Your task to perform on an android device: turn on improve location accuracy Image 0: 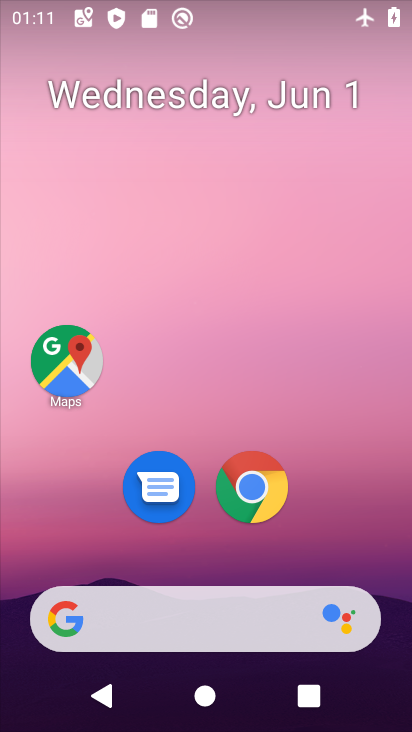
Step 0: drag from (292, 526) to (321, 176)
Your task to perform on an android device: turn on improve location accuracy Image 1: 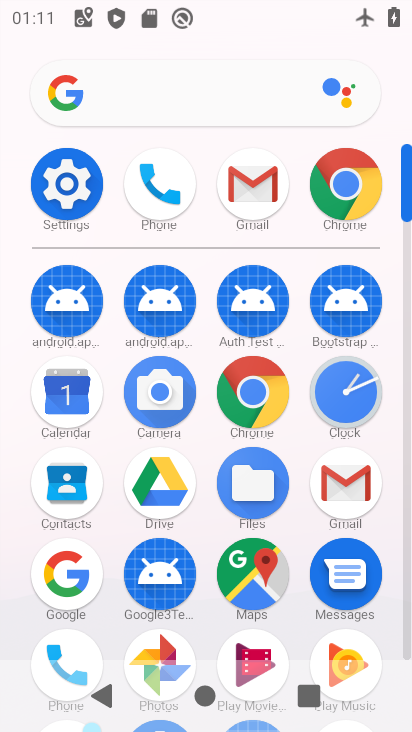
Step 1: click (58, 166)
Your task to perform on an android device: turn on improve location accuracy Image 2: 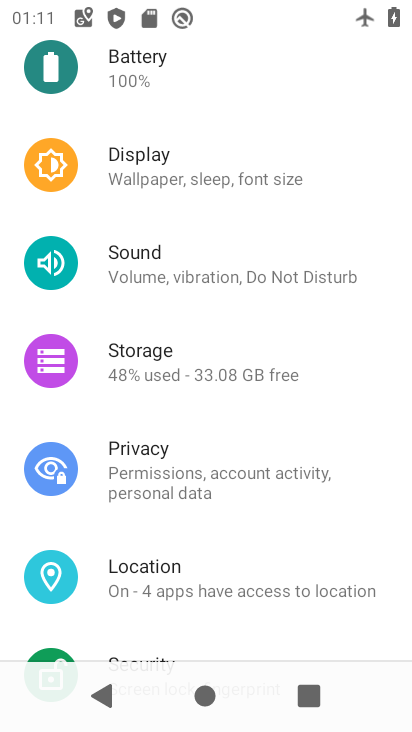
Step 2: drag from (174, 154) to (197, 529)
Your task to perform on an android device: turn on improve location accuracy Image 3: 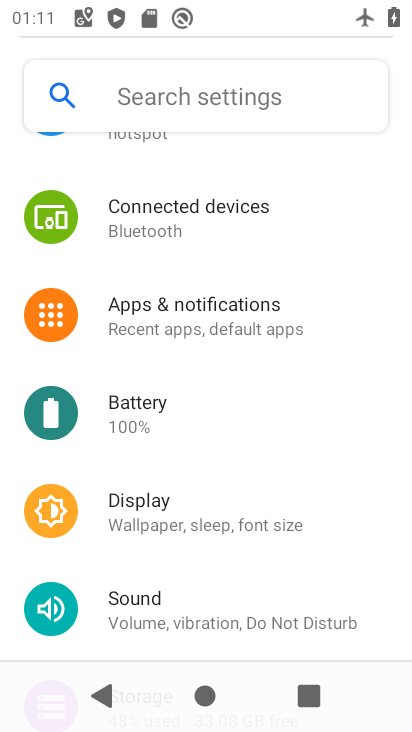
Step 3: drag from (219, 190) to (187, 555)
Your task to perform on an android device: turn on improve location accuracy Image 4: 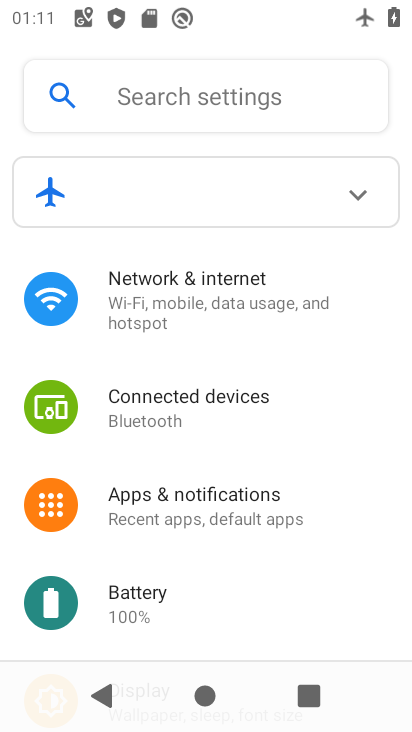
Step 4: drag from (201, 557) to (228, 271)
Your task to perform on an android device: turn on improve location accuracy Image 5: 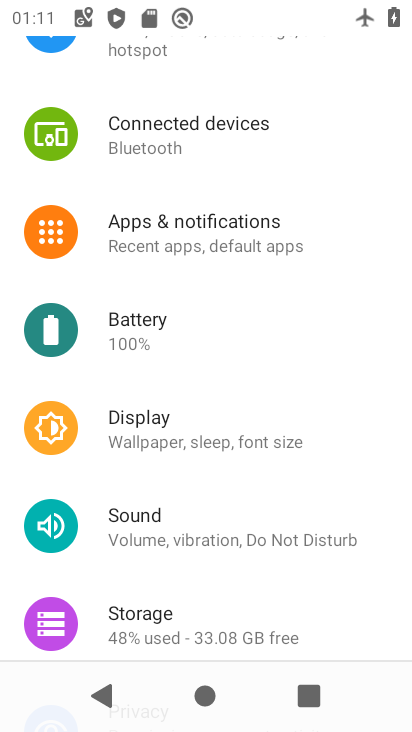
Step 5: drag from (177, 544) to (221, 261)
Your task to perform on an android device: turn on improve location accuracy Image 6: 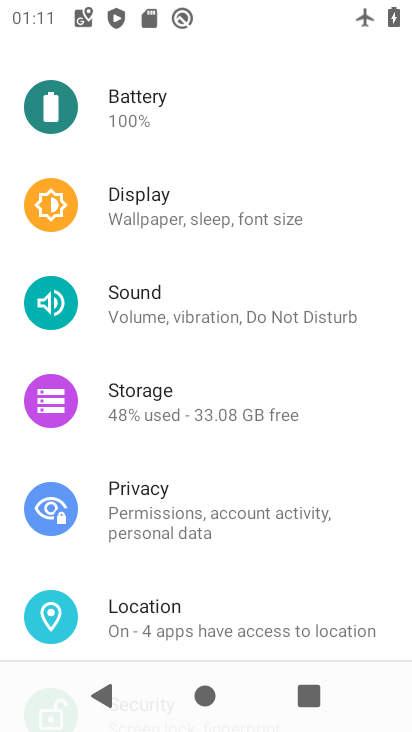
Step 6: drag from (199, 563) to (223, 346)
Your task to perform on an android device: turn on improve location accuracy Image 7: 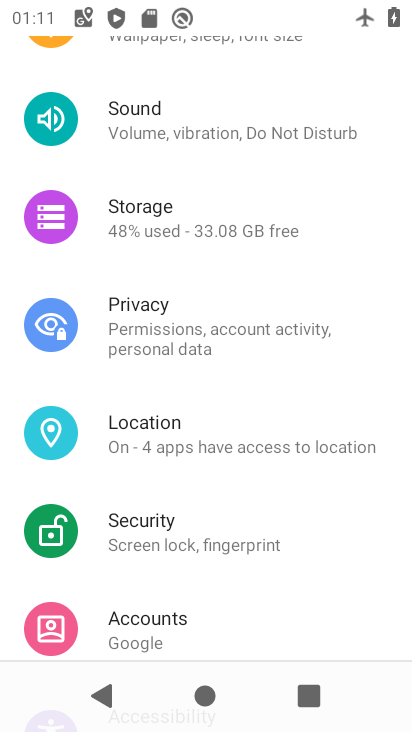
Step 7: click (157, 425)
Your task to perform on an android device: turn on improve location accuracy Image 8: 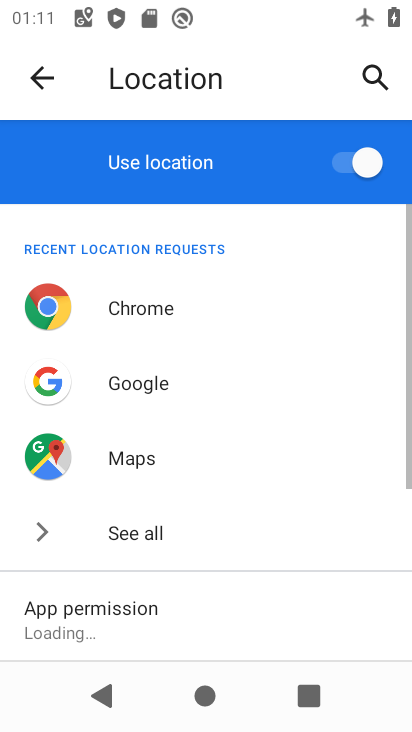
Step 8: drag from (144, 607) to (200, 299)
Your task to perform on an android device: turn on improve location accuracy Image 9: 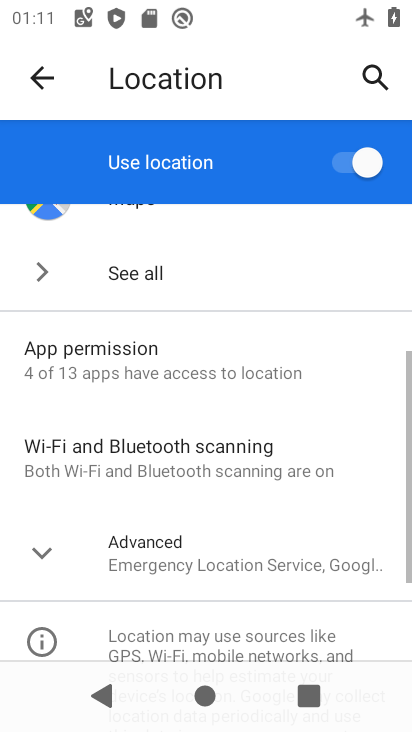
Step 9: click (103, 559)
Your task to perform on an android device: turn on improve location accuracy Image 10: 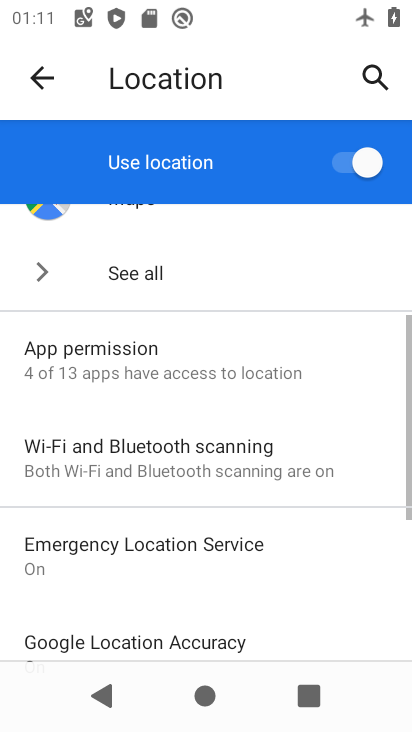
Step 10: drag from (131, 598) to (173, 368)
Your task to perform on an android device: turn on improve location accuracy Image 11: 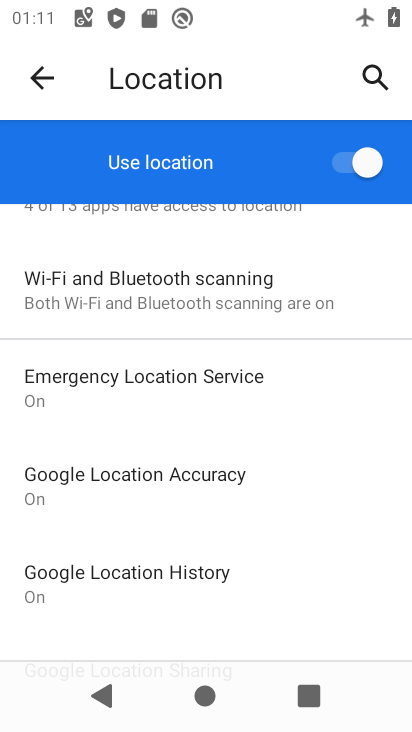
Step 11: click (82, 470)
Your task to perform on an android device: turn on improve location accuracy Image 12: 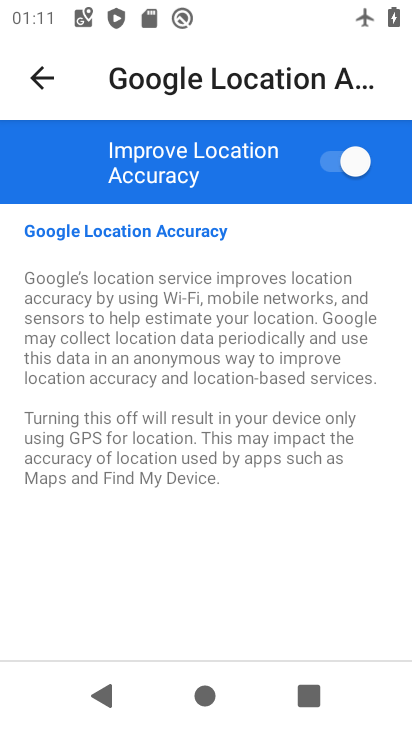
Step 12: task complete